Your task to perform on an android device: all mails in gmail Image 0: 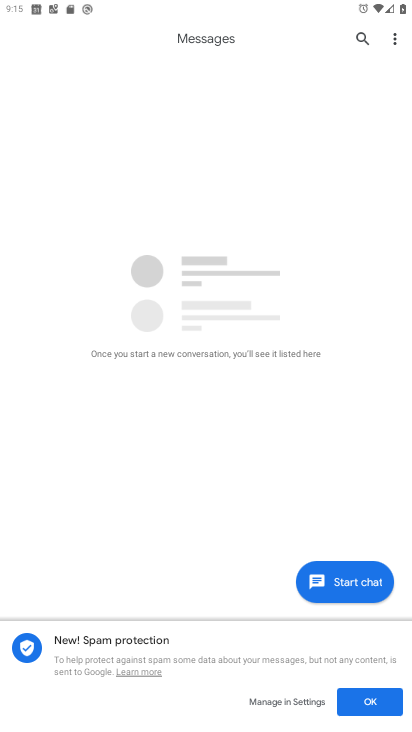
Step 0: press home button
Your task to perform on an android device: all mails in gmail Image 1: 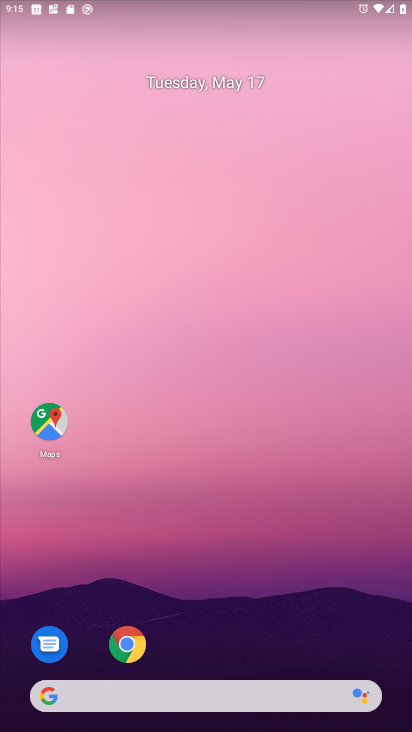
Step 1: drag from (208, 661) to (227, 45)
Your task to perform on an android device: all mails in gmail Image 2: 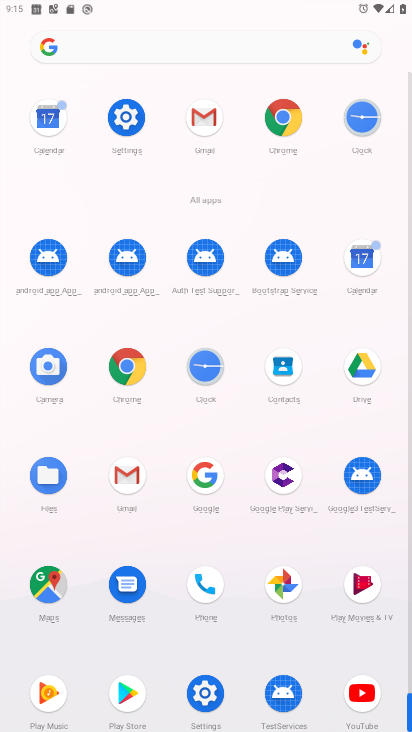
Step 2: click (123, 471)
Your task to perform on an android device: all mails in gmail Image 3: 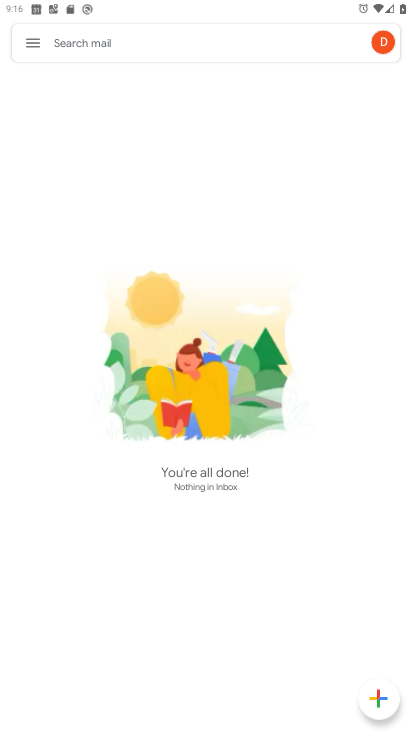
Step 3: click (26, 39)
Your task to perform on an android device: all mails in gmail Image 4: 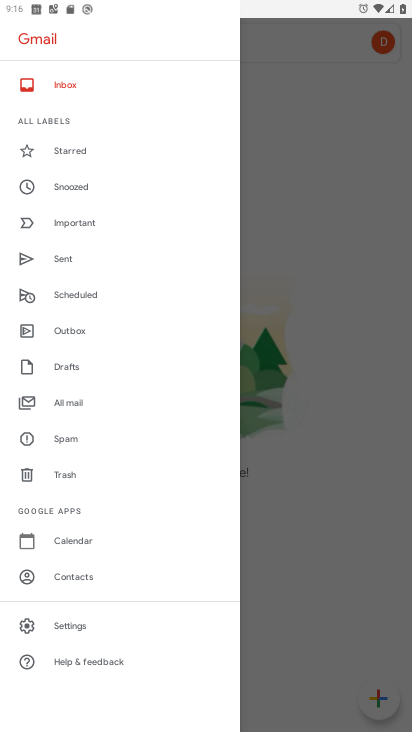
Step 4: click (86, 400)
Your task to perform on an android device: all mails in gmail Image 5: 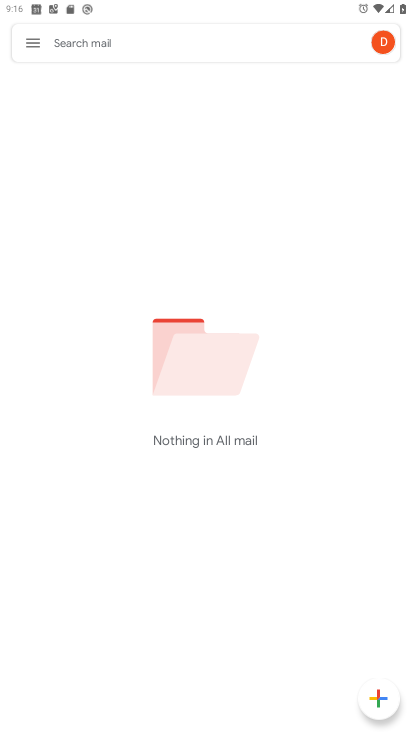
Step 5: task complete